Your task to perform on an android device: Go to CNN.com Image 0: 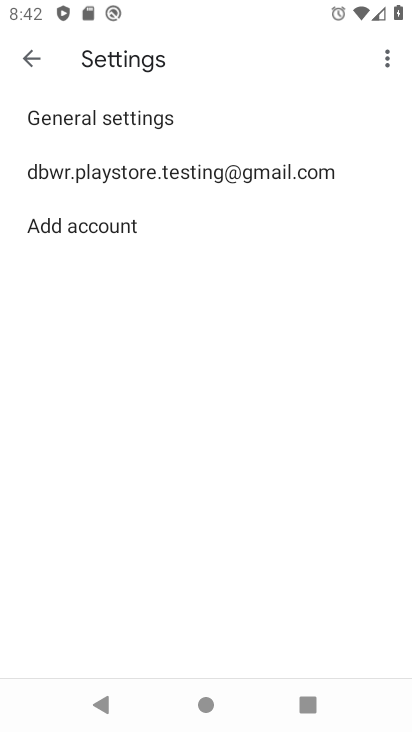
Step 0: click (13, 57)
Your task to perform on an android device: Go to CNN.com Image 1: 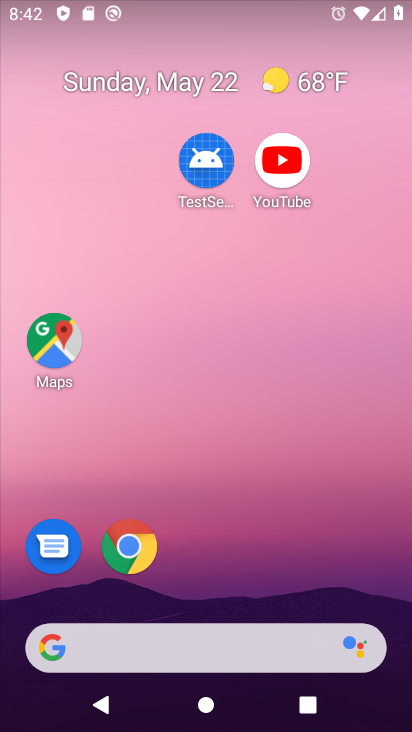
Step 1: drag from (9, 211) to (400, 490)
Your task to perform on an android device: Go to CNN.com Image 2: 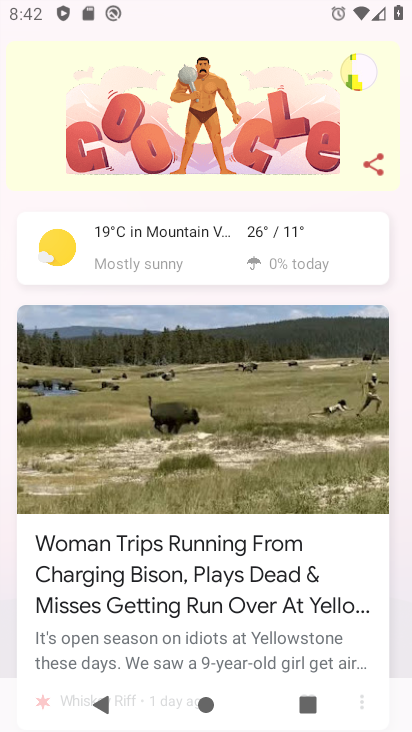
Step 2: drag from (361, 333) to (24, 386)
Your task to perform on an android device: Go to CNN.com Image 3: 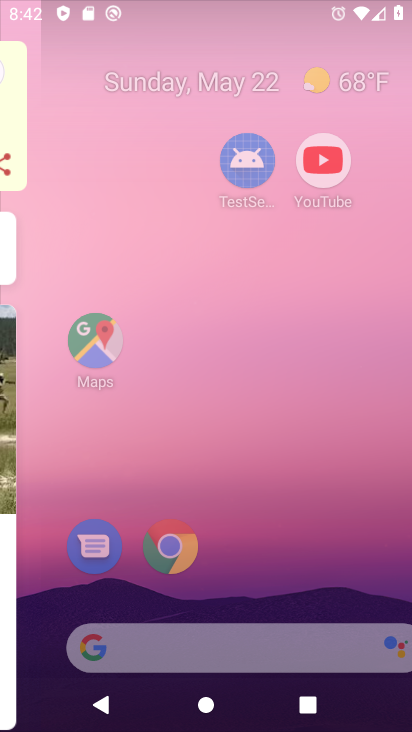
Step 3: drag from (116, 370) to (11, 363)
Your task to perform on an android device: Go to CNN.com Image 4: 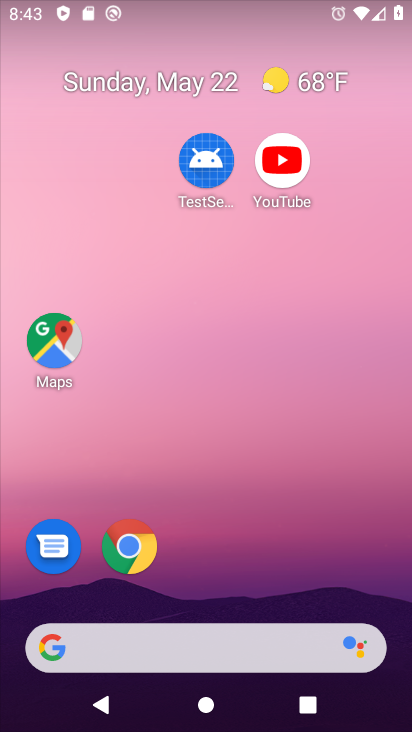
Step 4: drag from (239, 660) to (160, 186)
Your task to perform on an android device: Go to CNN.com Image 5: 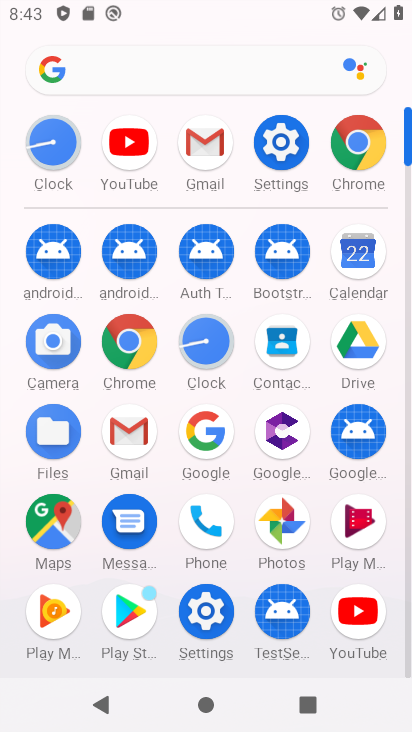
Step 5: click (369, 150)
Your task to perform on an android device: Go to CNN.com Image 6: 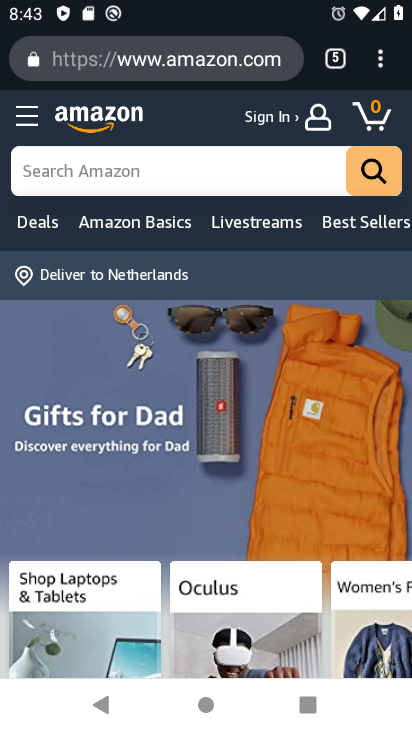
Step 6: drag from (377, 60) to (144, 112)
Your task to perform on an android device: Go to CNN.com Image 7: 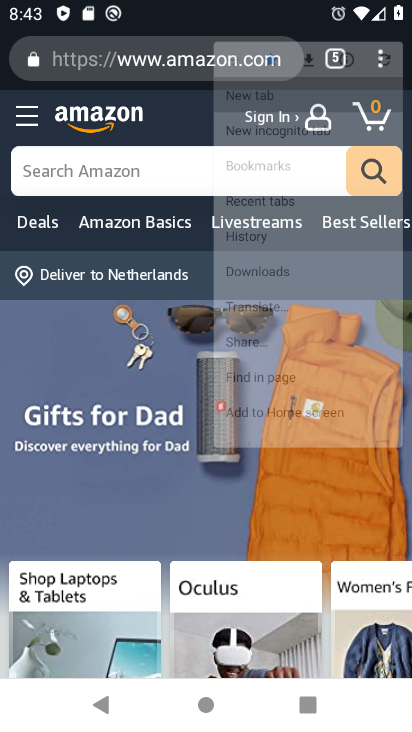
Step 7: click (145, 113)
Your task to perform on an android device: Go to CNN.com Image 8: 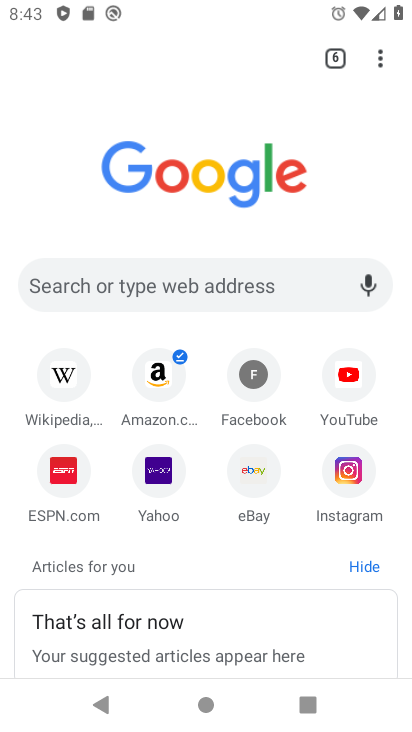
Step 8: click (74, 278)
Your task to perform on an android device: Go to CNN.com Image 9: 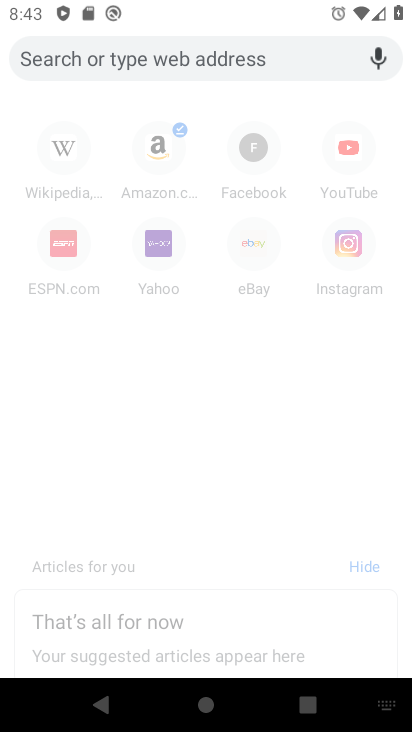
Step 9: type "cnn.com"
Your task to perform on an android device: Go to CNN.com Image 10: 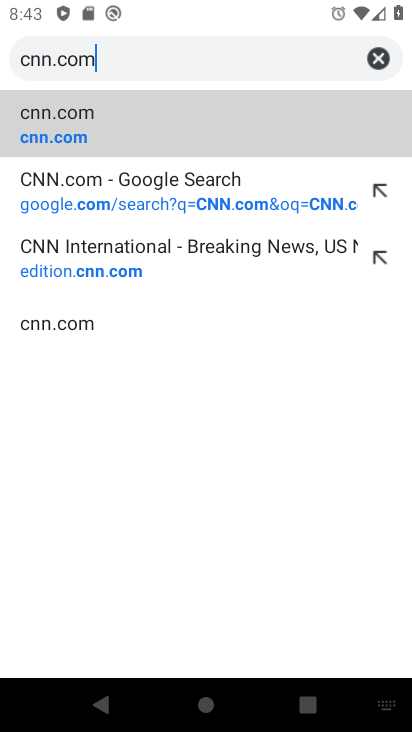
Step 10: click (75, 126)
Your task to perform on an android device: Go to CNN.com Image 11: 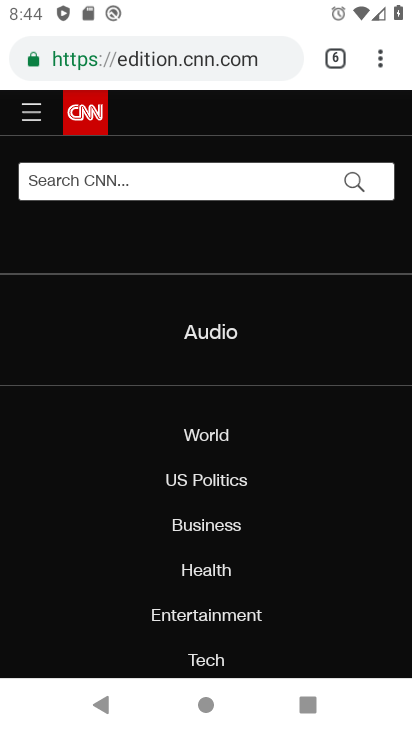
Step 11: press back button
Your task to perform on an android device: Go to CNN.com Image 12: 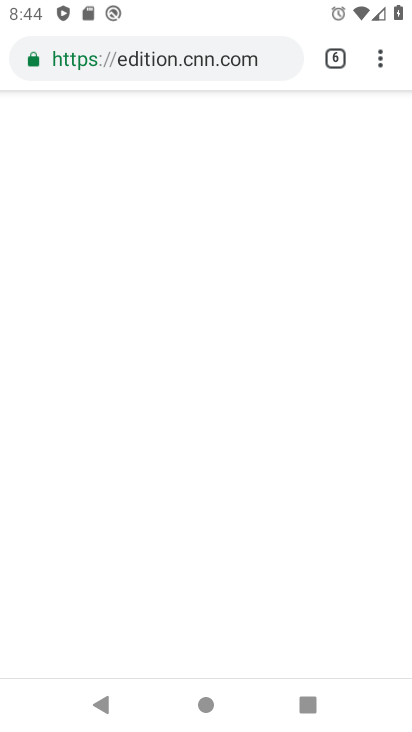
Step 12: press back button
Your task to perform on an android device: Go to CNN.com Image 13: 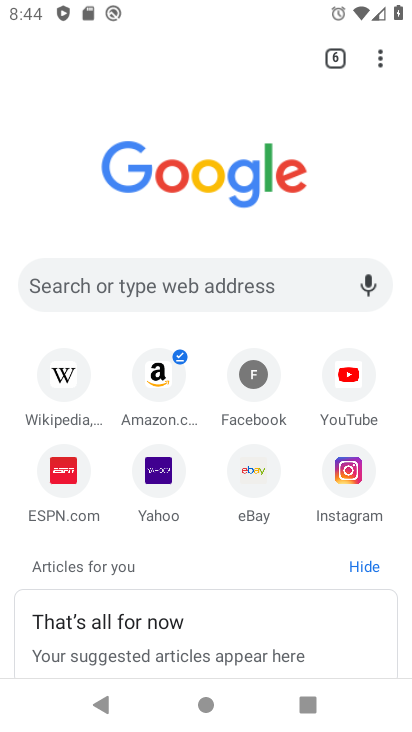
Step 13: press back button
Your task to perform on an android device: Go to CNN.com Image 14: 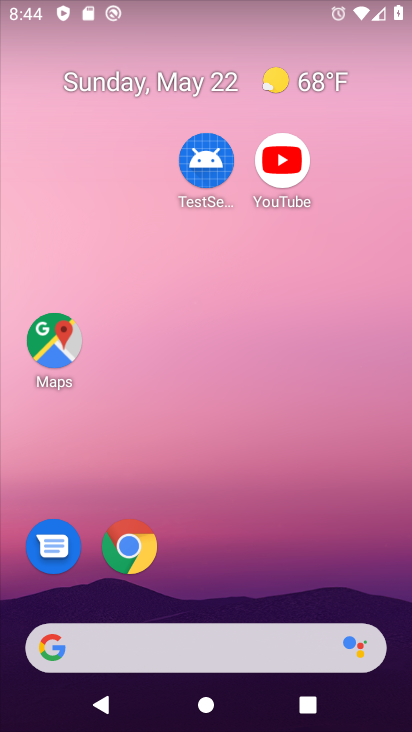
Step 14: drag from (368, 62) to (207, 378)
Your task to perform on an android device: Go to CNN.com Image 15: 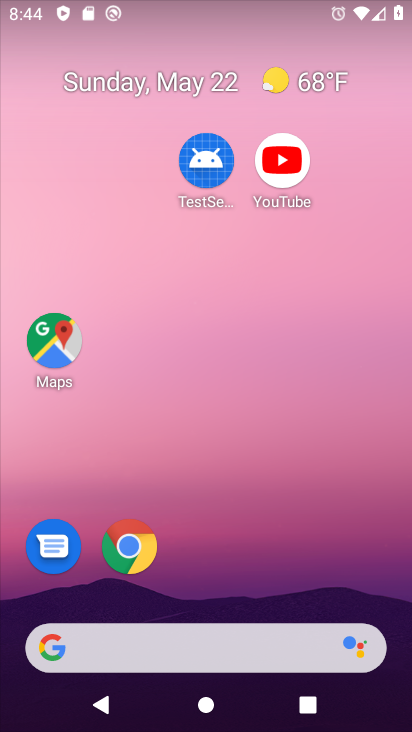
Step 15: drag from (225, 681) to (219, 95)
Your task to perform on an android device: Go to CNN.com Image 16: 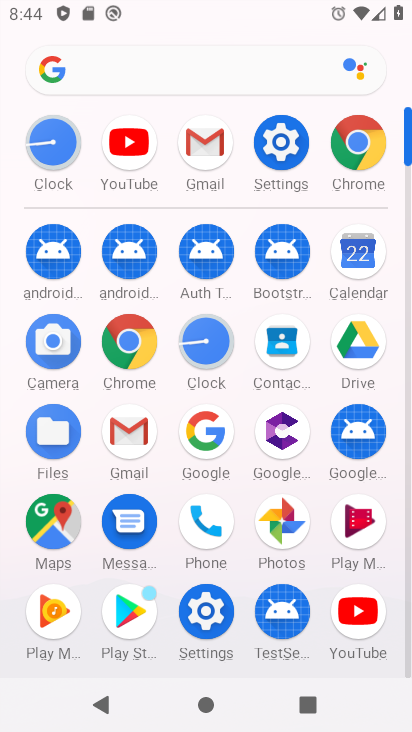
Step 16: click (353, 147)
Your task to perform on an android device: Go to CNN.com Image 17: 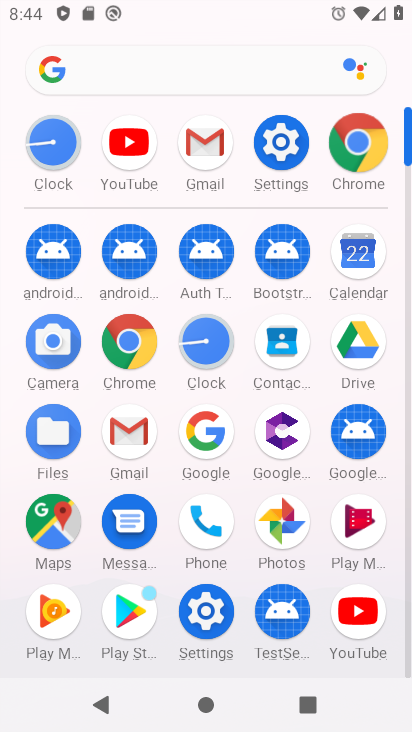
Step 17: click (353, 147)
Your task to perform on an android device: Go to CNN.com Image 18: 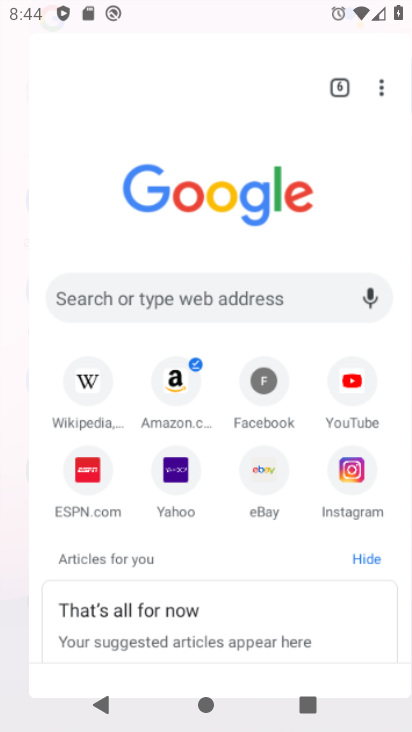
Step 18: click (353, 148)
Your task to perform on an android device: Go to CNN.com Image 19: 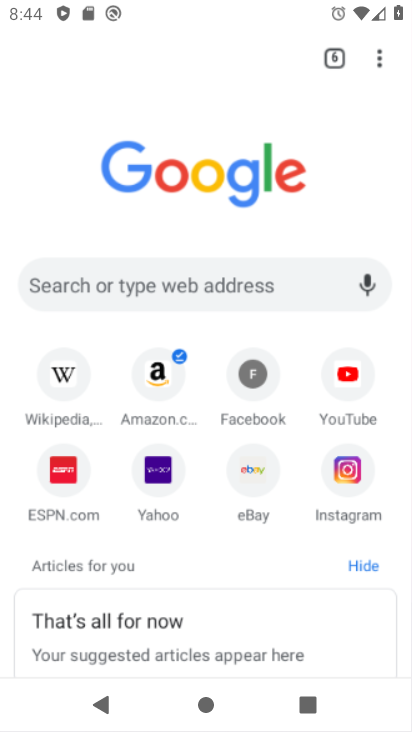
Step 19: click (356, 145)
Your task to perform on an android device: Go to CNN.com Image 20: 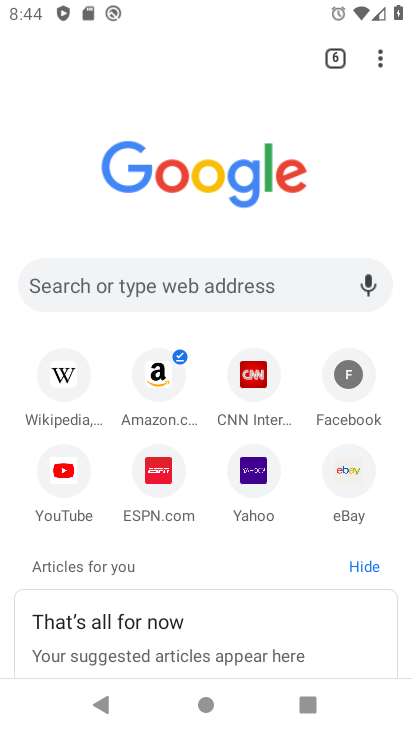
Step 20: drag from (382, 56) to (169, 106)
Your task to perform on an android device: Go to CNN.com Image 21: 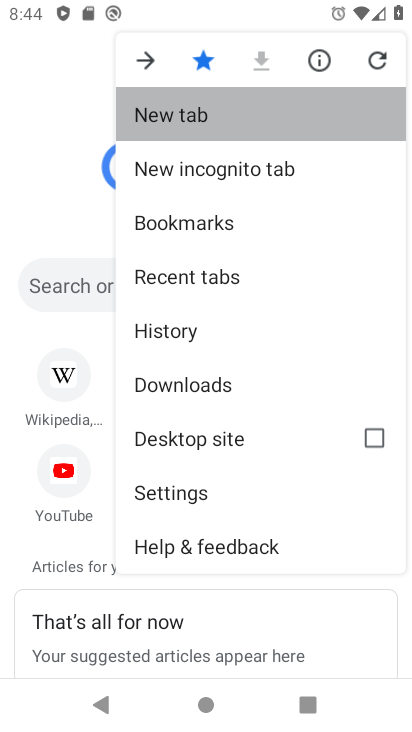
Step 21: click (168, 106)
Your task to perform on an android device: Go to CNN.com Image 22: 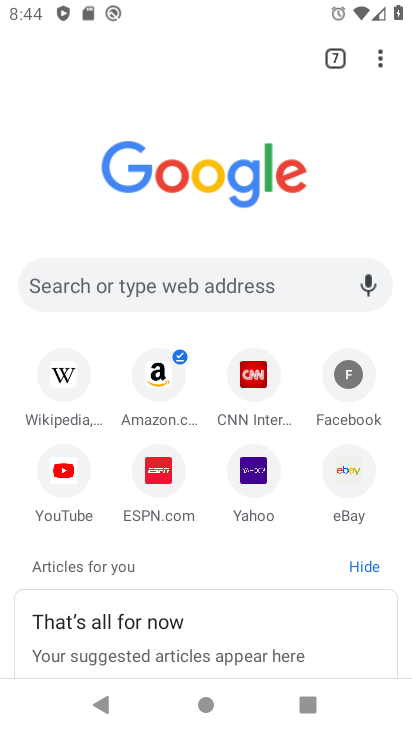
Step 22: click (104, 282)
Your task to perform on an android device: Go to CNN.com Image 23: 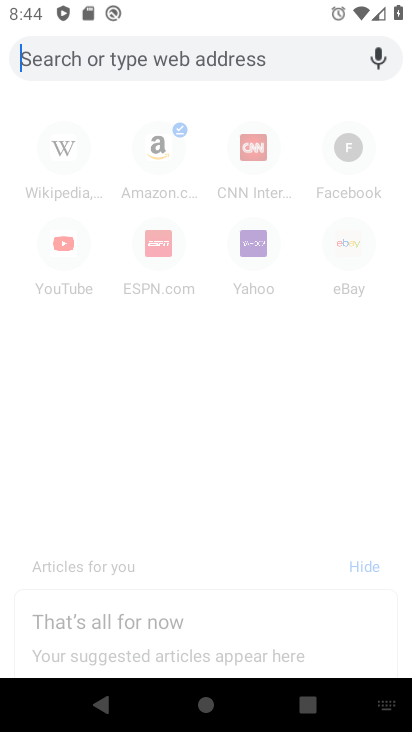
Step 23: type "cnn.com"
Your task to perform on an android device: Go to CNN.com Image 24: 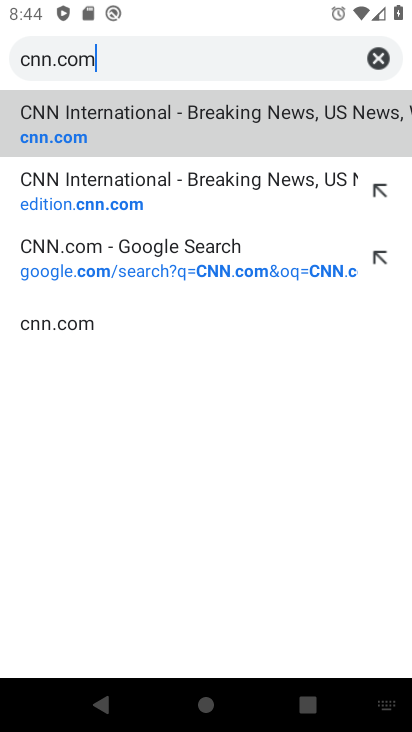
Step 24: click (78, 132)
Your task to perform on an android device: Go to CNN.com Image 25: 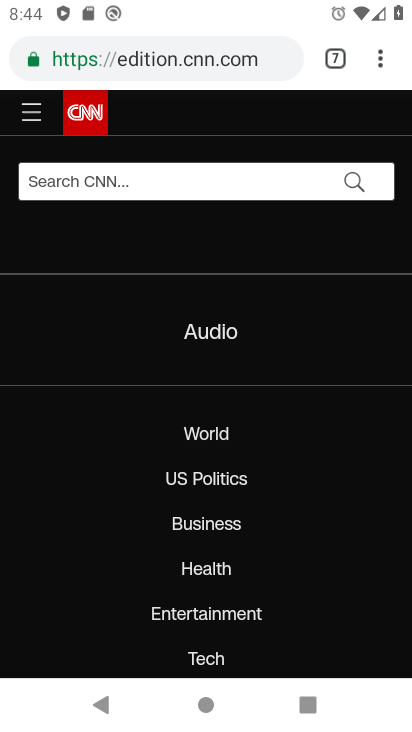
Step 25: task complete